Your task to perform on an android device: Search for the best rated lawnmower on Lowes.com Image 0: 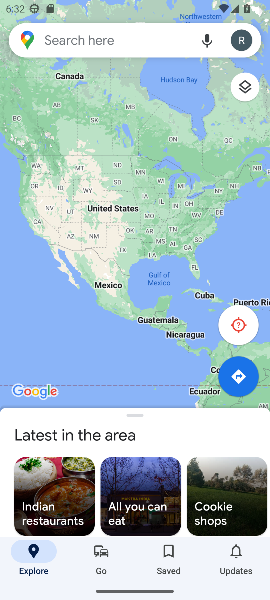
Step 0: press home button
Your task to perform on an android device: Search for the best rated lawnmower on Lowes.com Image 1: 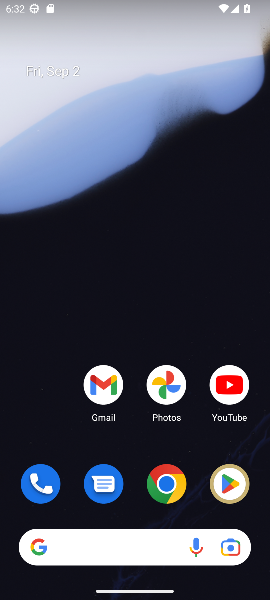
Step 1: click (165, 485)
Your task to perform on an android device: Search for the best rated lawnmower on Lowes.com Image 2: 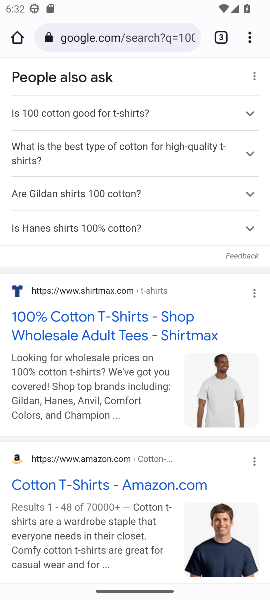
Step 2: click (135, 31)
Your task to perform on an android device: Search for the best rated lawnmower on Lowes.com Image 3: 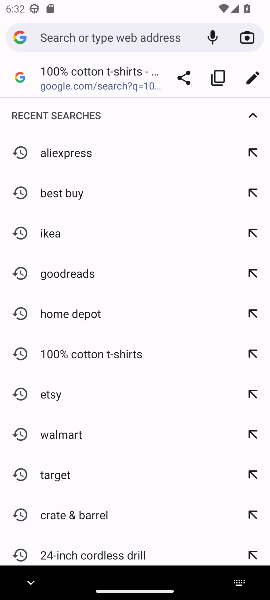
Step 3: type "Lowes.com"
Your task to perform on an android device: Search for the best rated lawnmower on Lowes.com Image 4: 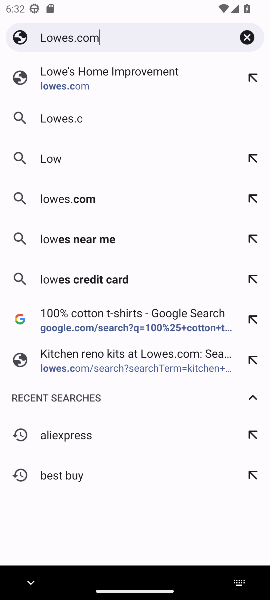
Step 4: press enter
Your task to perform on an android device: Search for the best rated lawnmower on Lowes.com Image 5: 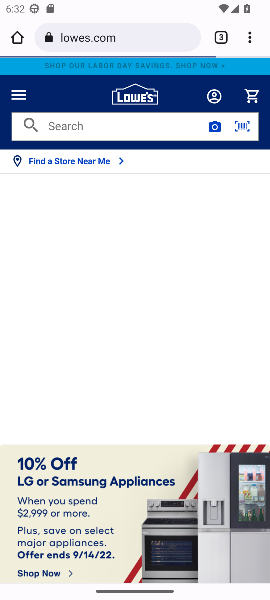
Step 5: click (109, 125)
Your task to perform on an android device: Search for the best rated lawnmower on Lowes.com Image 6: 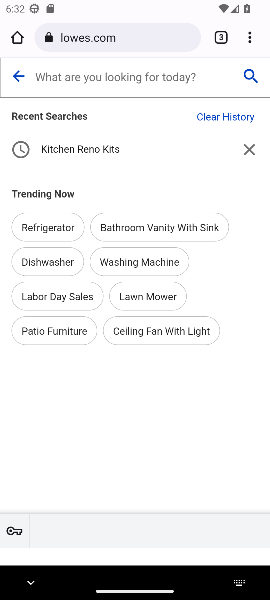
Step 6: type " lawnmower "
Your task to perform on an android device: Search for the best rated lawnmower on Lowes.com Image 7: 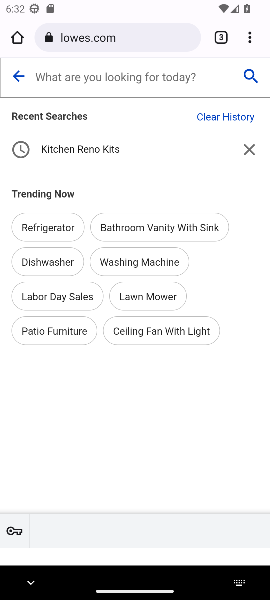
Step 7: press enter
Your task to perform on an android device: Search for the best rated lawnmower on Lowes.com Image 8: 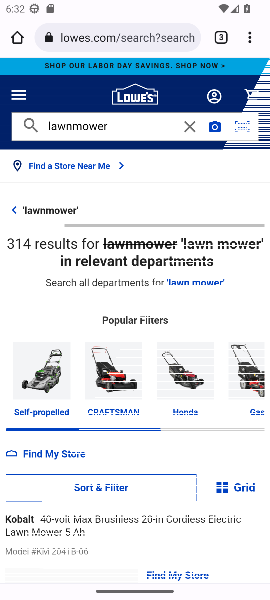
Step 8: task complete